Your task to perform on an android device: Open battery settings Image 0: 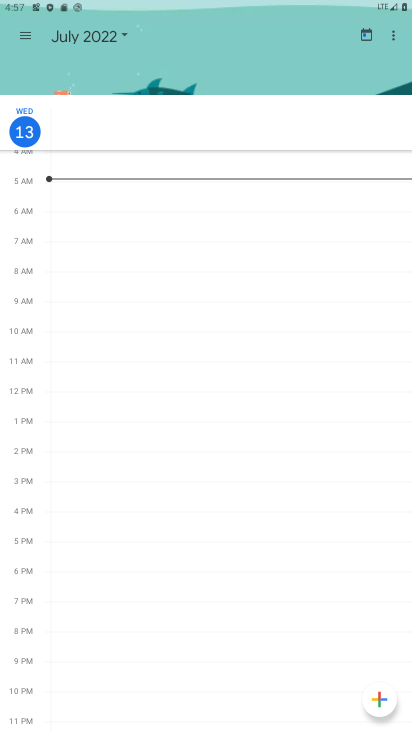
Step 0: press back button
Your task to perform on an android device: Open battery settings Image 1: 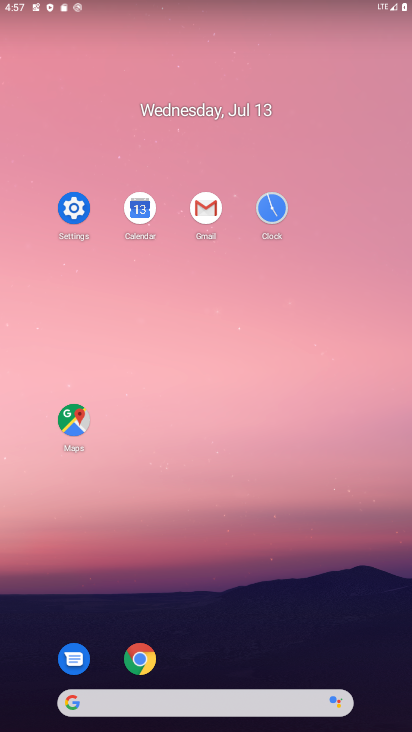
Step 1: click (80, 209)
Your task to perform on an android device: Open battery settings Image 2: 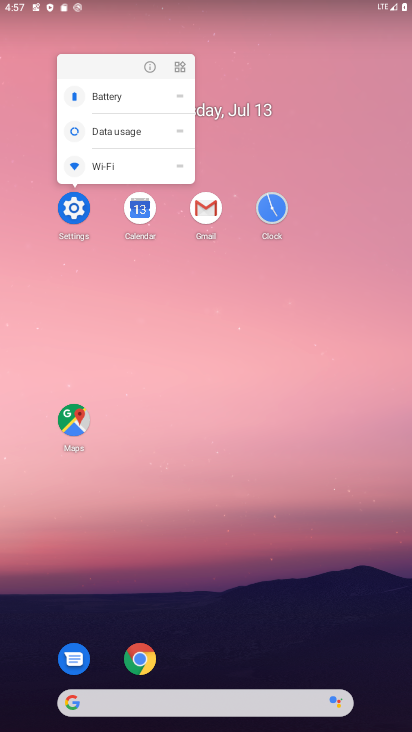
Step 2: click (70, 221)
Your task to perform on an android device: Open battery settings Image 3: 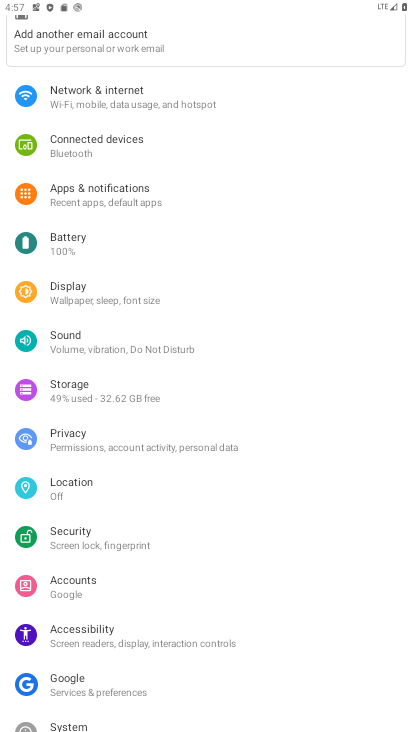
Step 3: click (113, 238)
Your task to perform on an android device: Open battery settings Image 4: 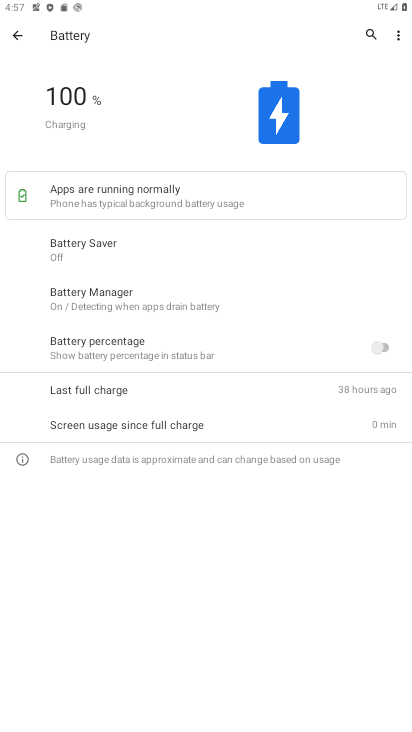
Step 4: task complete